Your task to perform on an android device: toggle pop-ups in chrome Image 0: 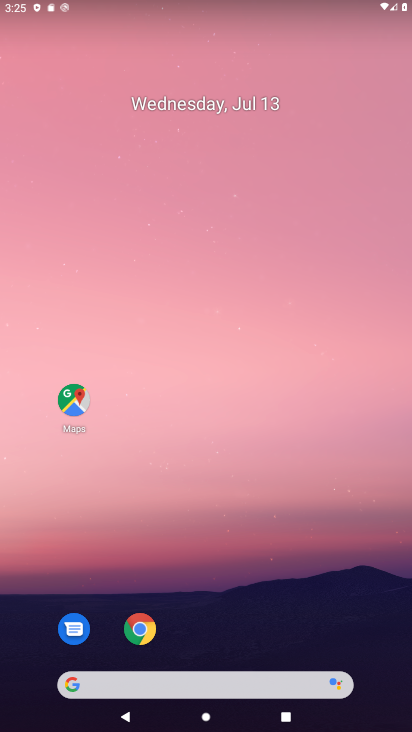
Step 0: press home button
Your task to perform on an android device: toggle pop-ups in chrome Image 1: 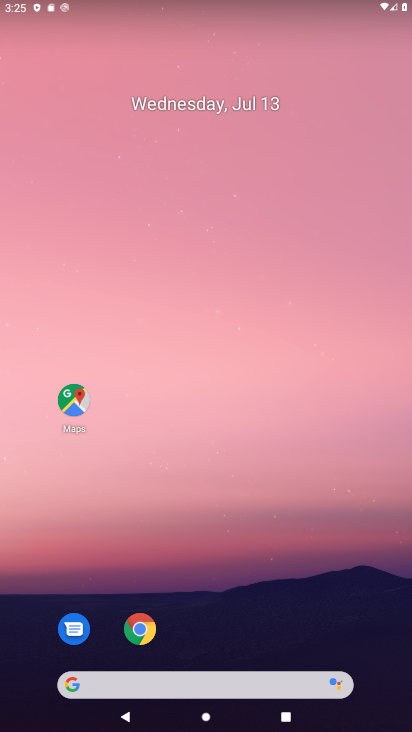
Step 1: click (141, 621)
Your task to perform on an android device: toggle pop-ups in chrome Image 2: 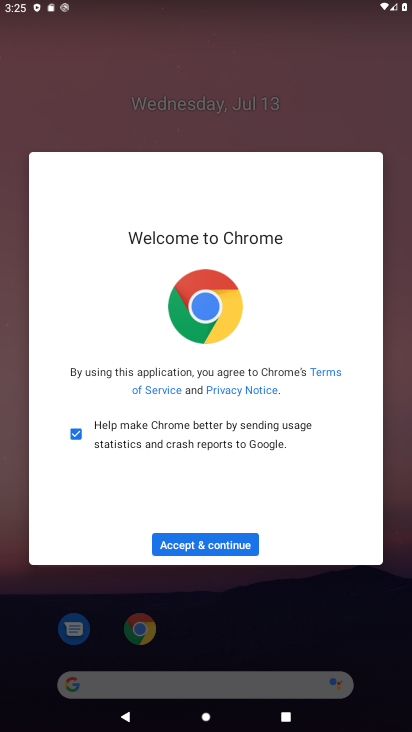
Step 2: click (208, 540)
Your task to perform on an android device: toggle pop-ups in chrome Image 3: 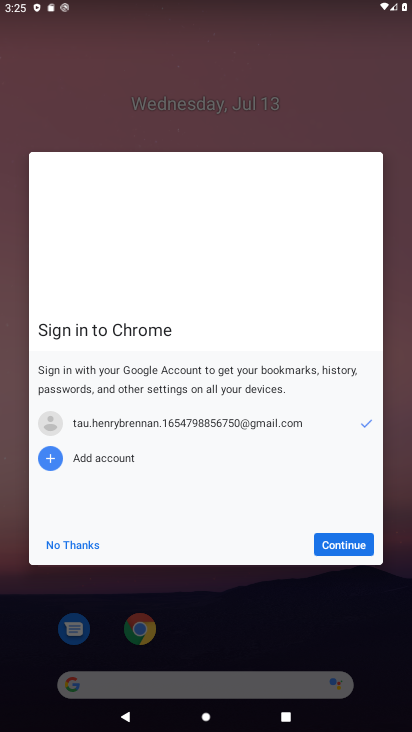
Step 3: click (366, 542)
Your task to perform on an android device: toggle pop-ups in chrome Image 4: 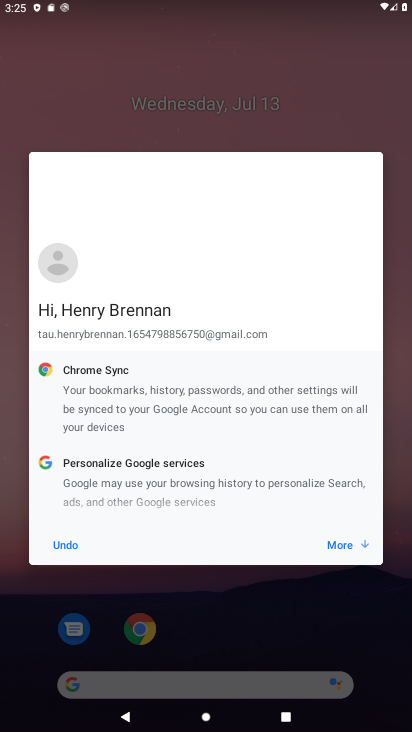
Step 4: click (366, 541)
Your task to perform on an android device: toggle pop-ups in chrome Image 5: 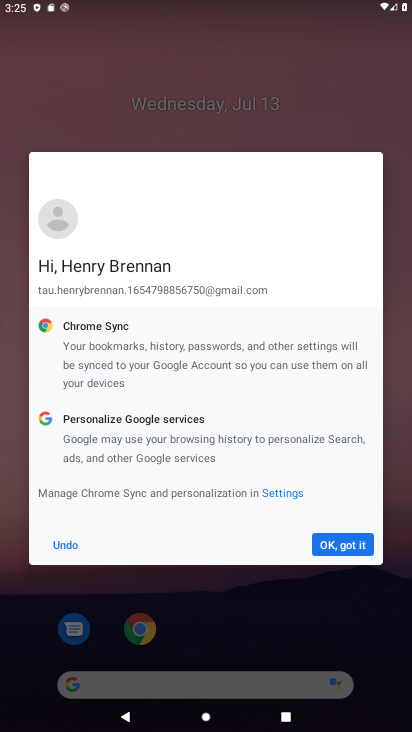
Step 5: click (362, 544)
Your task to perform on an android device: toggle pop-ups in chrome Image 6: 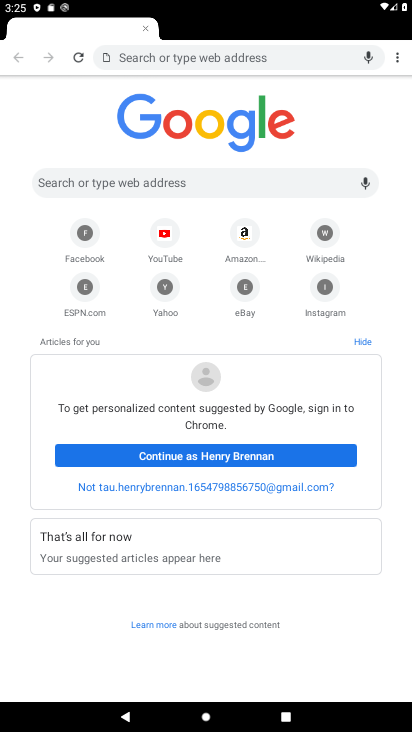
Step 6: drag from (391, 52) to (290, 265)
Your task to perform on an android device: toggle pop-ups in chrome Image 7: 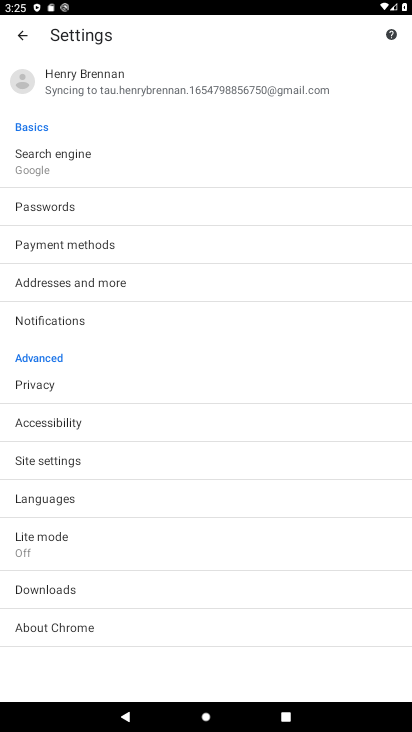
Step 7: click (64, 459)
Your task to perform on an android device: toggle pop-ups in chrome Image 8: 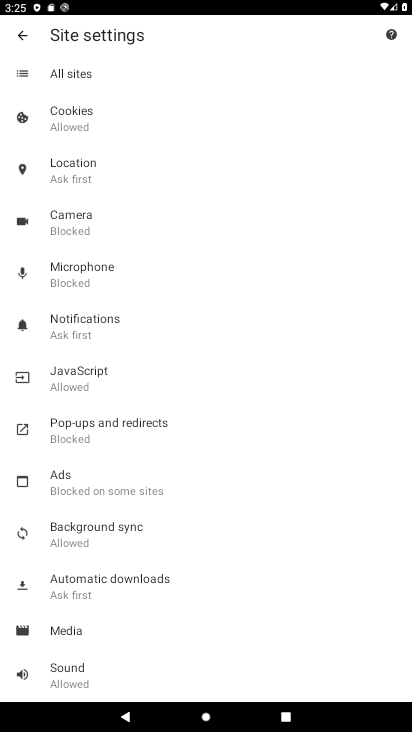
Step 8: click (79, 436)
Your task to perform on an android device: toggle pop-ups in chrome Image 9: 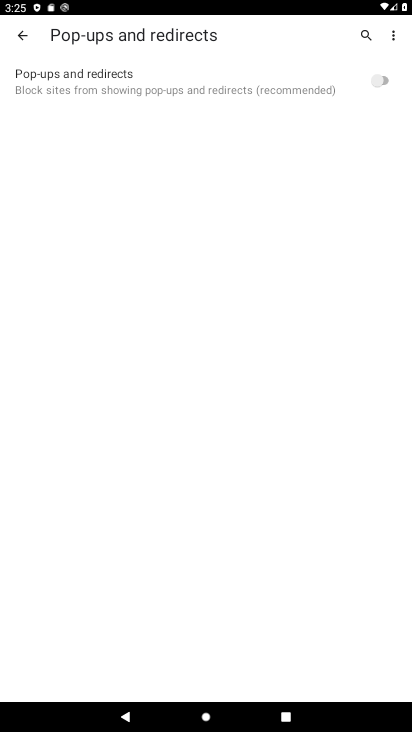
Step 9: click (381, 81)
Your task to perform on an android device: toggle pop-ups in chrome Image 10: 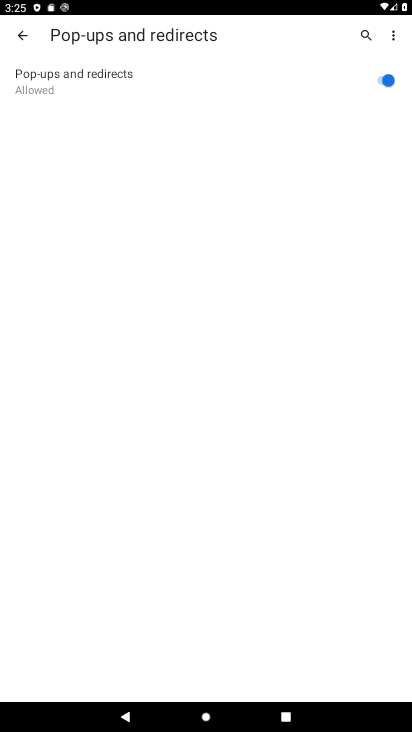
Step 10: task complete